Your task to perform on an android device: open wifi settings Image 0: 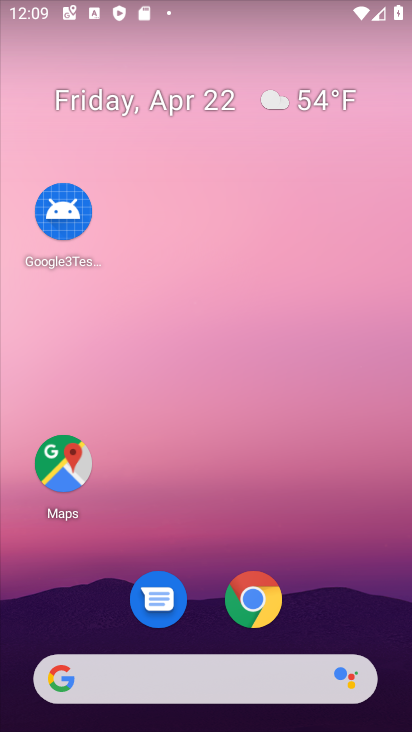
Step 0: drag from (195, 506) to (168, 38)
Your task to perform on an android device: open wifi settings Image 1: 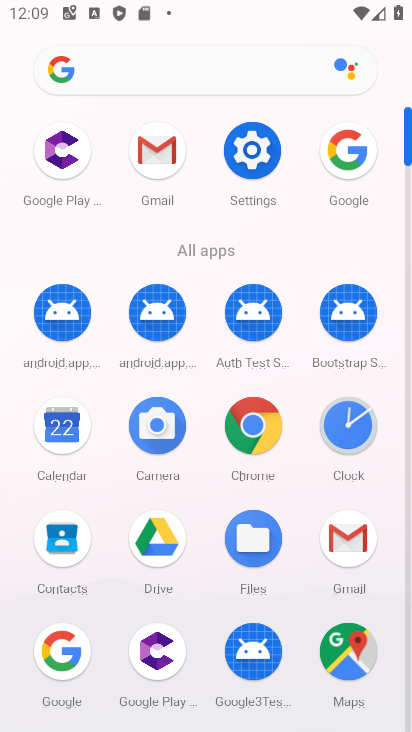
Step 1: click (247, 152)
Your task to perform on an android device: open wifi settings Image 2: 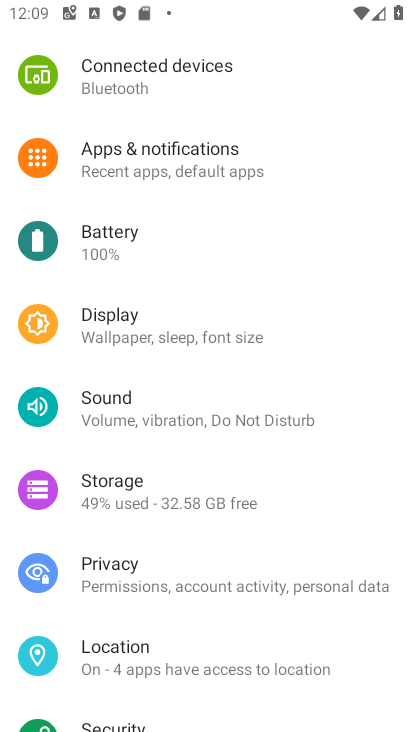
Step 2: drag from (220, 226) to (224, 458)
Your task to perform on an android device: open wifi settings Image 3: 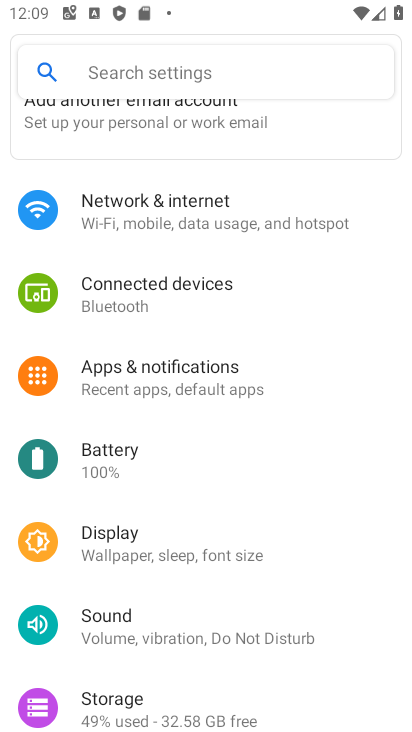
Step 3: click (210, 219)
Your task to perform on an android device: open wifi settings Image 4: 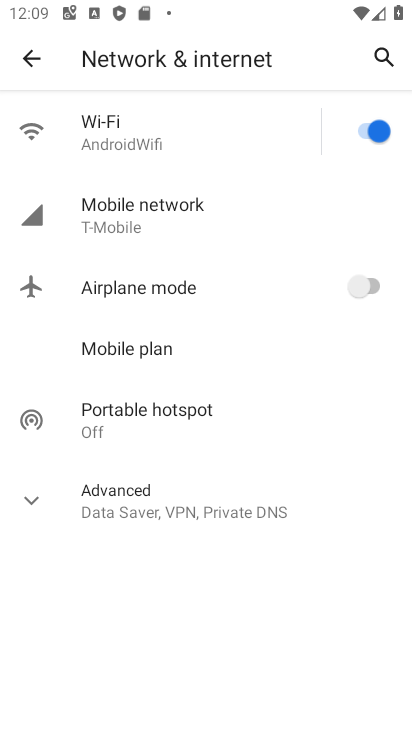
Step 4: click (161, 132)
Your task to perform on an android device: open wifi settings Image 5: 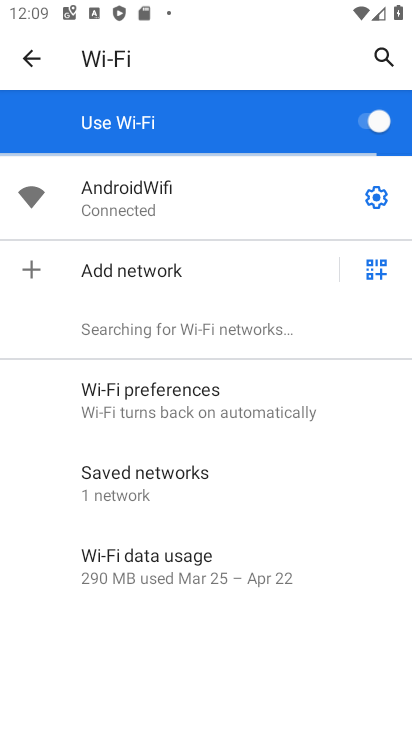
Step 5: task complete